Your task to perform on an android device: Open the Play Movies app and select the watchlist tab. Image 0: 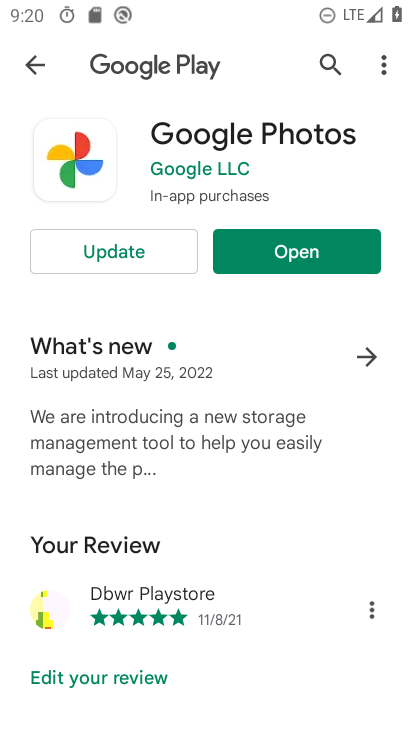
Step 0: press home button
Your task to perform on an android device: Open the Play Movies app and select the watchlist tab. Image 1: 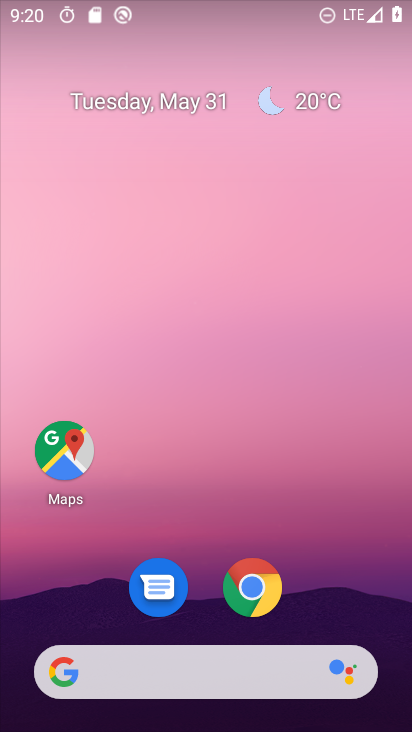
Step 1: drag from (197, 608) to (248, 28)
Your task to perform on an android device: Open the Play Movies app and select the watchlist tab. Image 2: 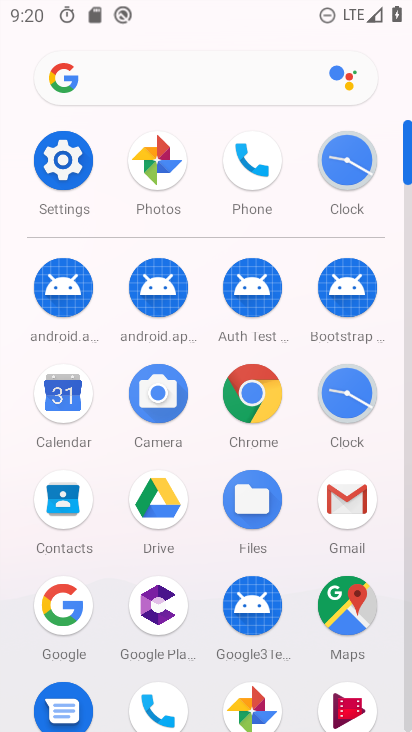
Step 2: click (344, 697)
Your task to perform on an android device: Open the Play Movies app and select the watchlist tab. Image 3: 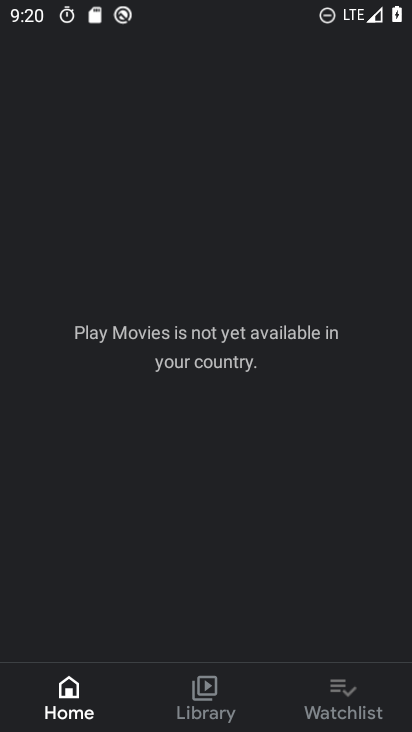
Step 3: click (344, 697)
Your task to perform on an android device: Open the Play Movies app and select the watchlist tab. Image 4: 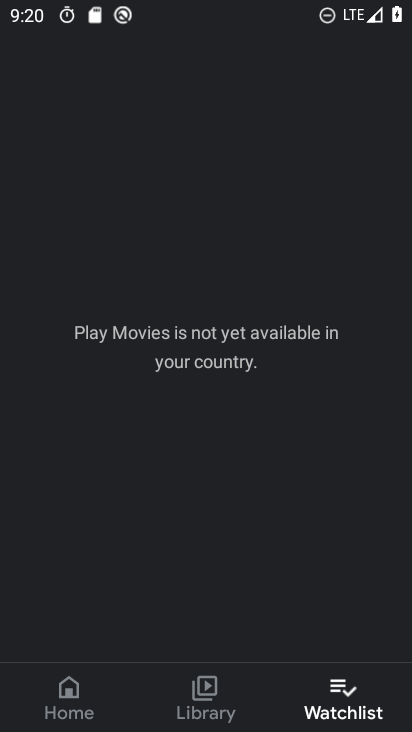
Step 4: task complete